Your task to perform on an android device: Search for seafood restaurants on Google Maps Image 0: 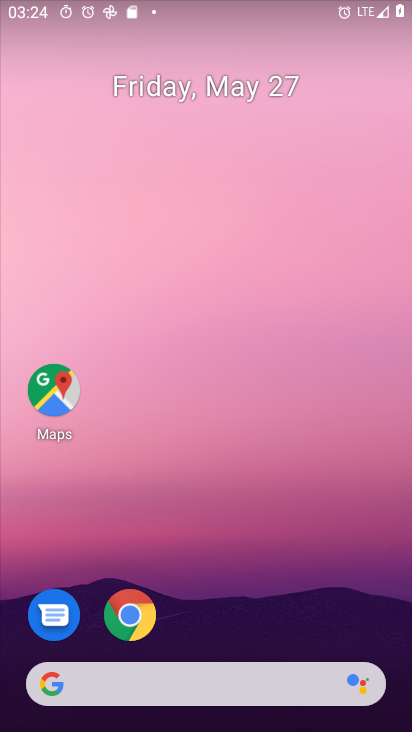
Step 0: drag from (358, 618) to (363, 260)
Your task to perform on an android device: Search for seafood restaurants on Google Maps Image 1: 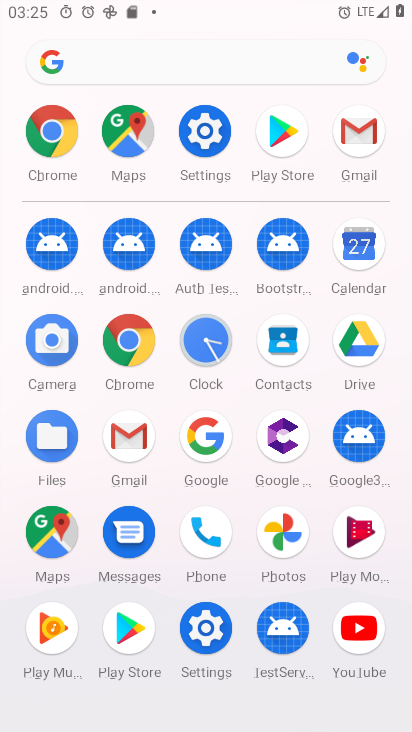
Step 1: click (45, 546)
Your task to perform on an android device: Search for seafood restaurants on Google Maps Image 2: 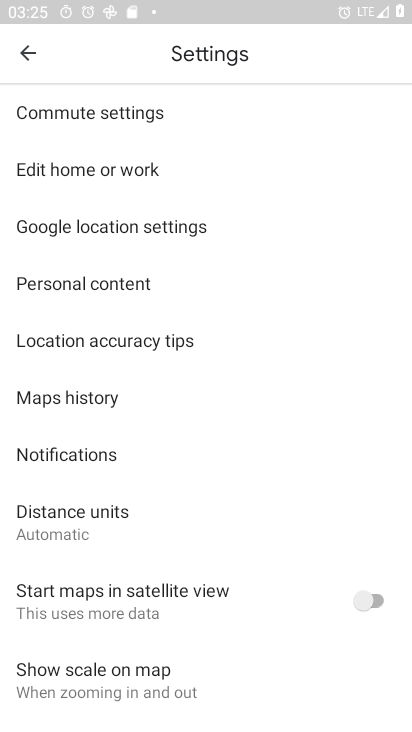
Step 2: click (30, 59)
Your task to perform on an android device: Search for seafood restaurants on Google Maps Image 3: 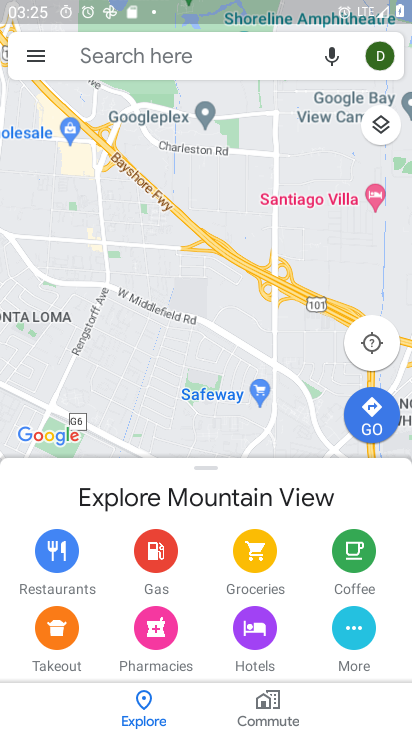
Step 3: click (121, 57)
Your task to perform on an android device: Search for seafood restaurants on Google Maps Image 4: 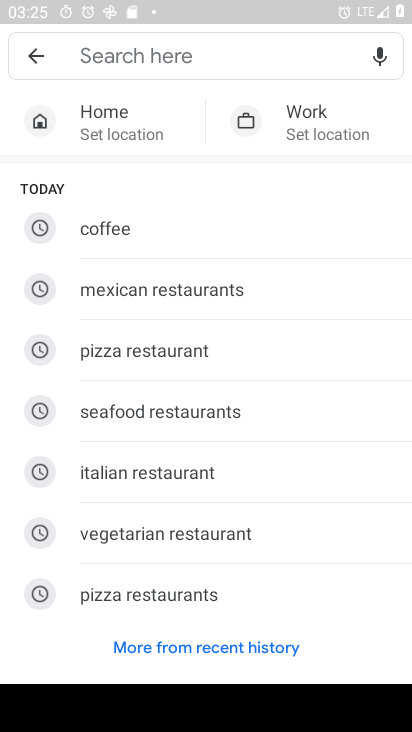
Step 4: type "seafood restaurants"
Your task to perform on an android device: Search for seafood restaurants on Google Maps Image 5: 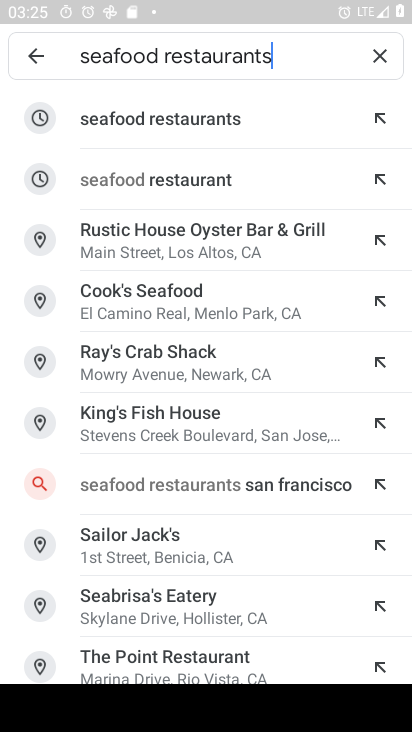
Step 5: click (220, 120)
Your task to perform on an android device: Search for seafood restaurants on Google Maps Image 6: 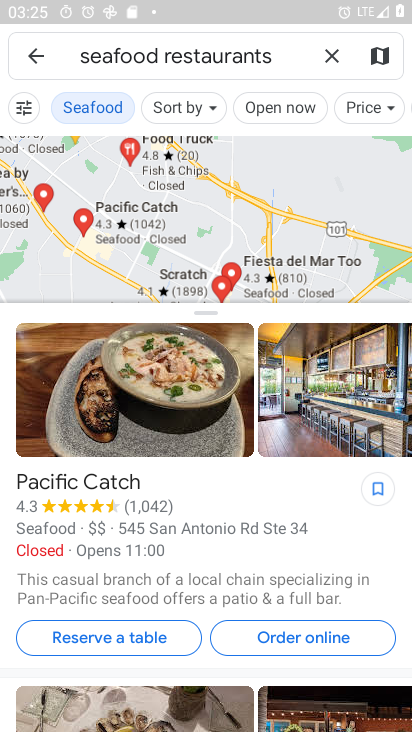
Step 6: task complete